Your task to perform on an android device: Set the phone to "Do not disturb". Image 0: 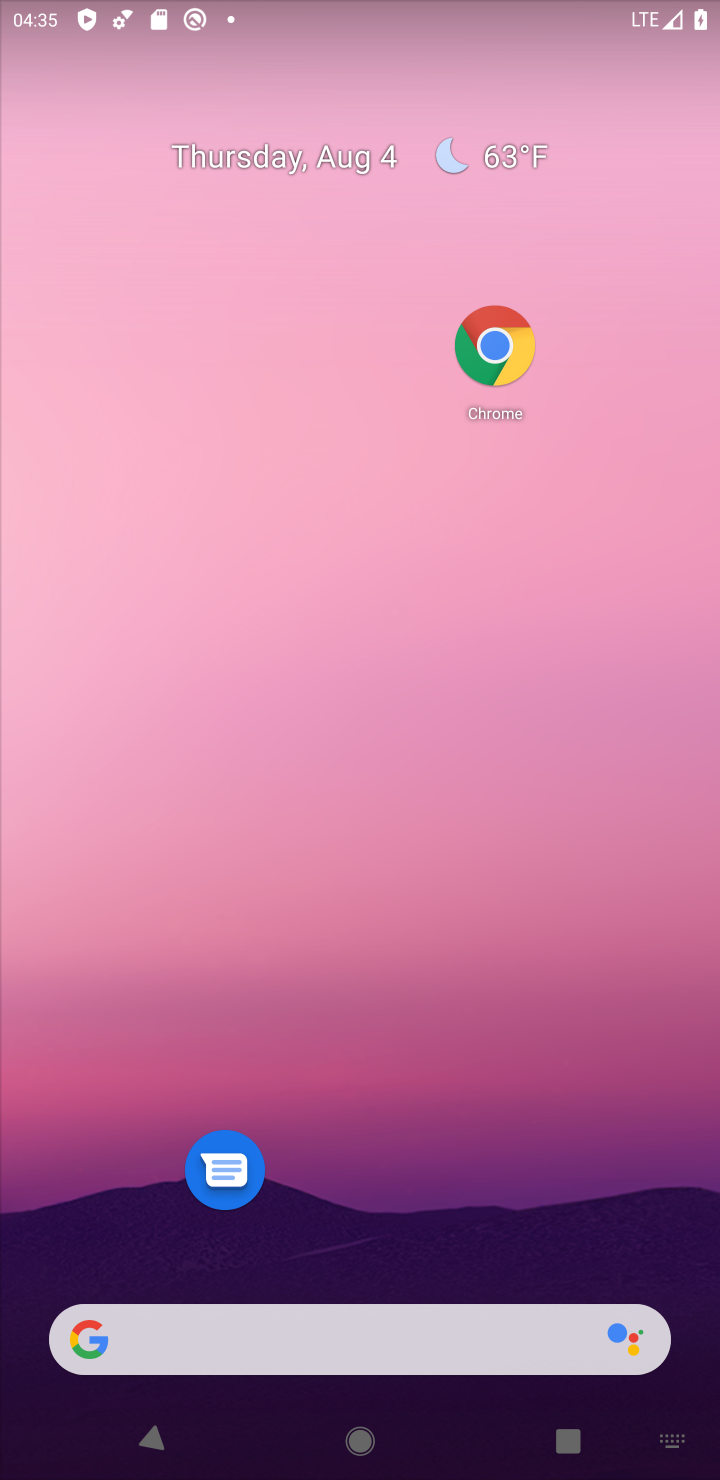
Step 0: drag from (685, 1213) to (670, 98)
Your task to perform on an android device: Set the phone to "Do not disturb". Image 1: 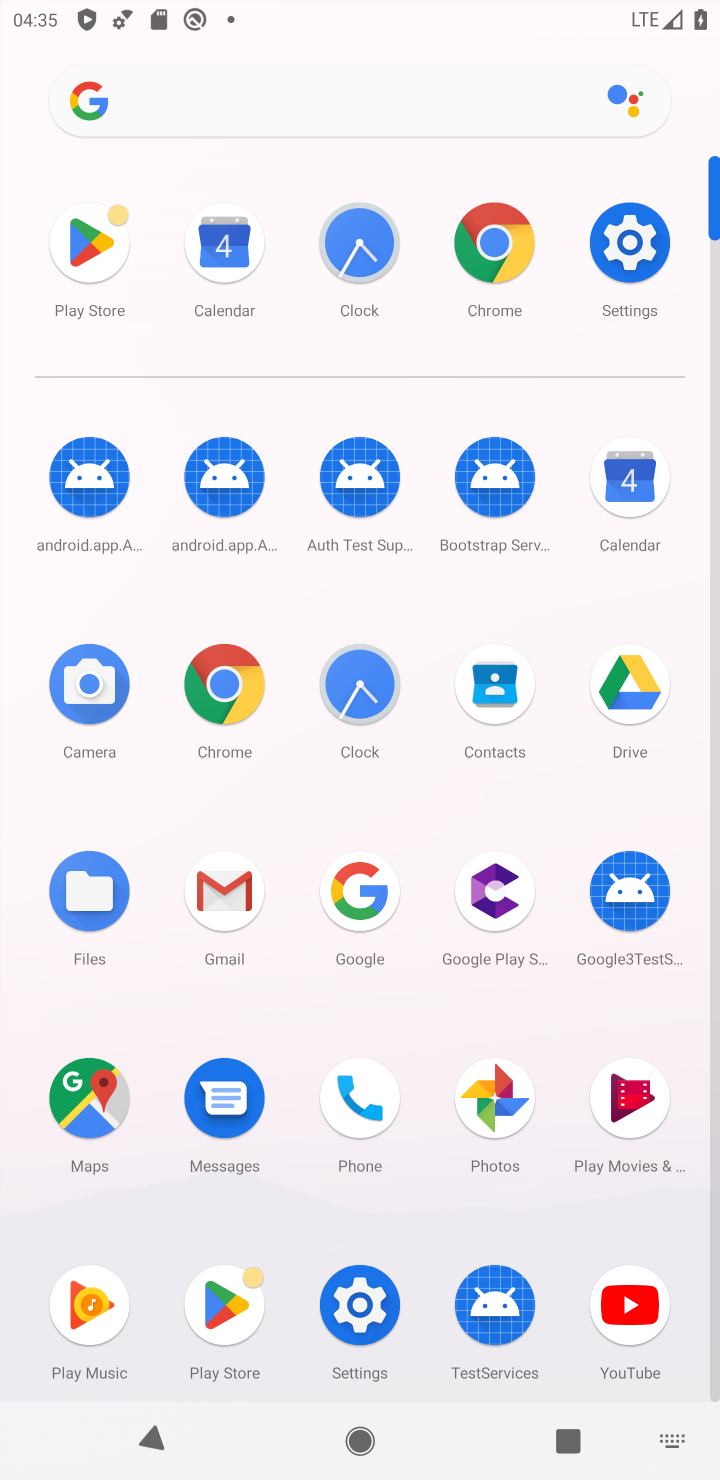
Step 1: click (628, 260)
Your task to perform on an android device: Set the phone to "Do not disturb". Image 2: 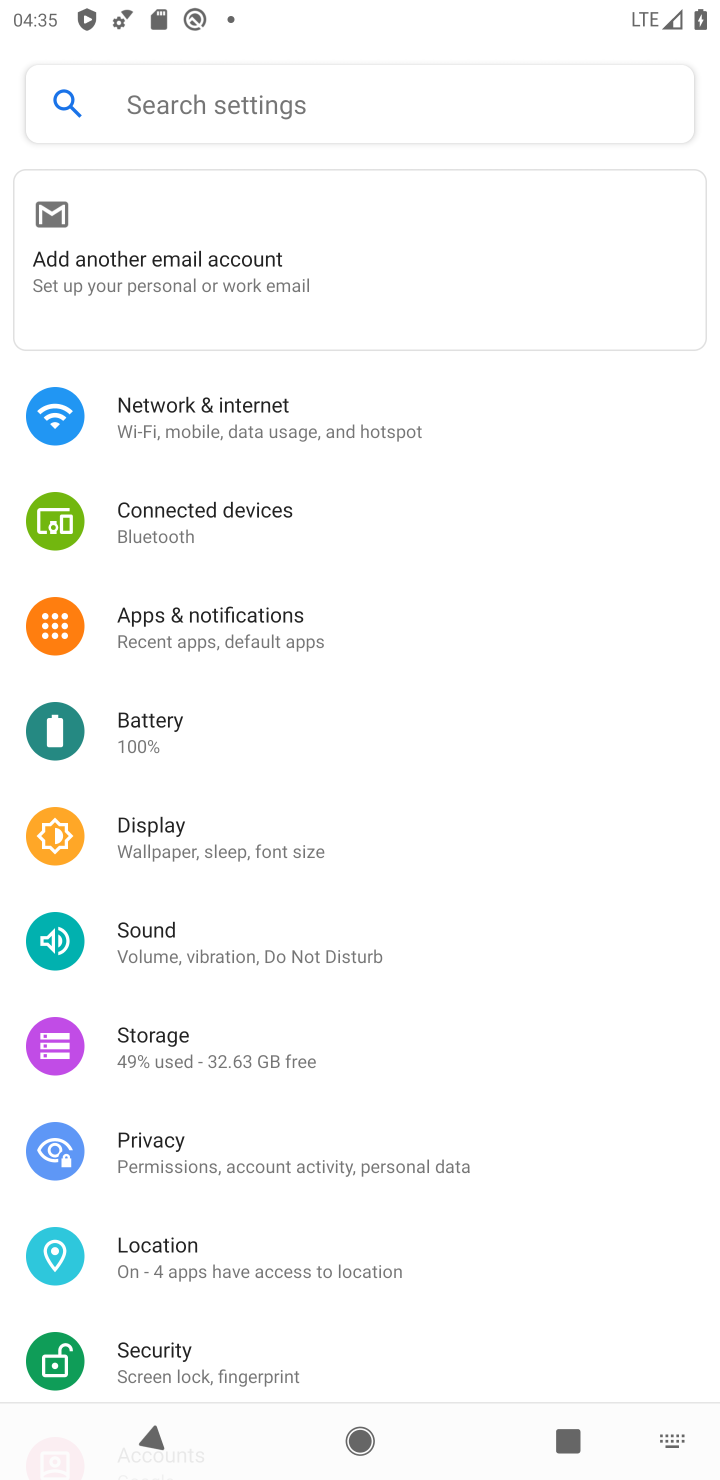
Step 2: click (286, 972)
Your task to perform on an android device: Set the phone to "Do not disturb". Image 3: 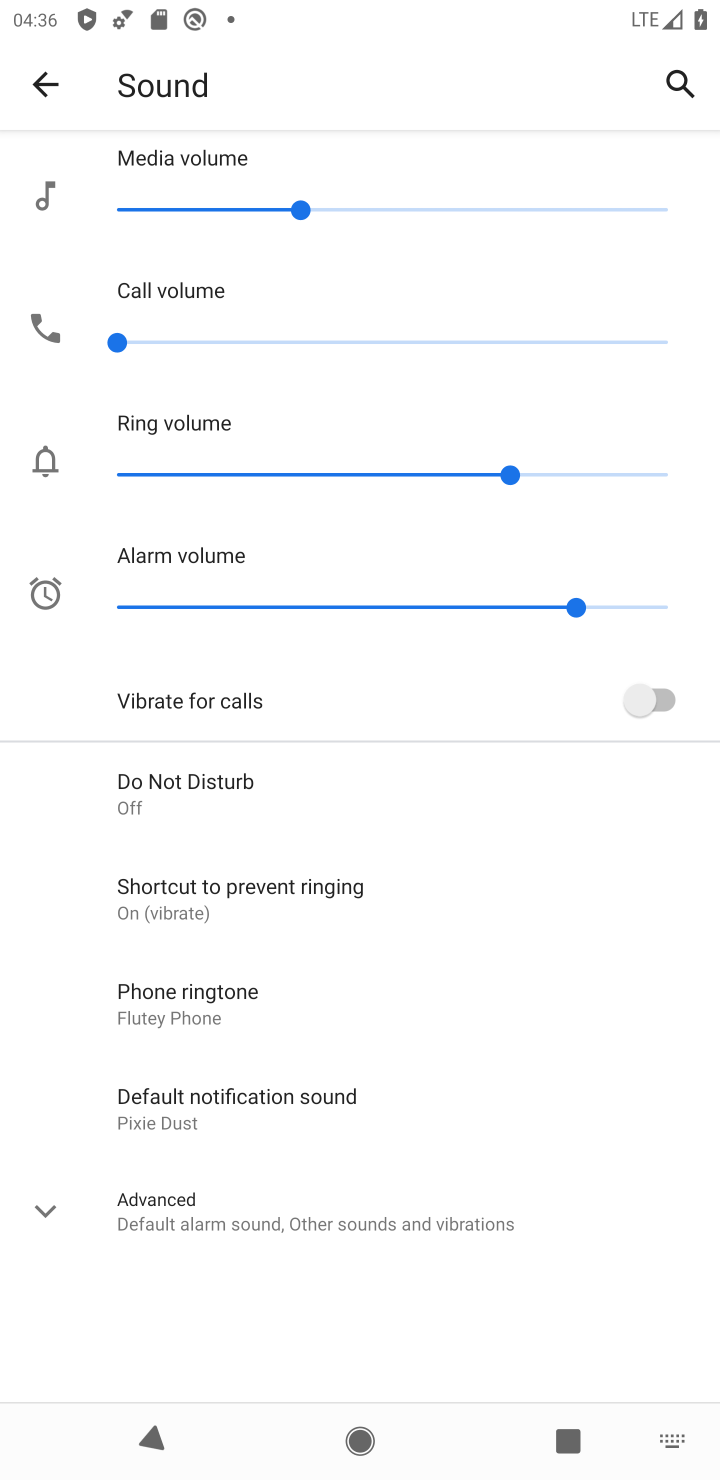
Step 3: click (406, 773)
Your task to perform on an android device: Set the phone to "Do not disturb". Image 4: 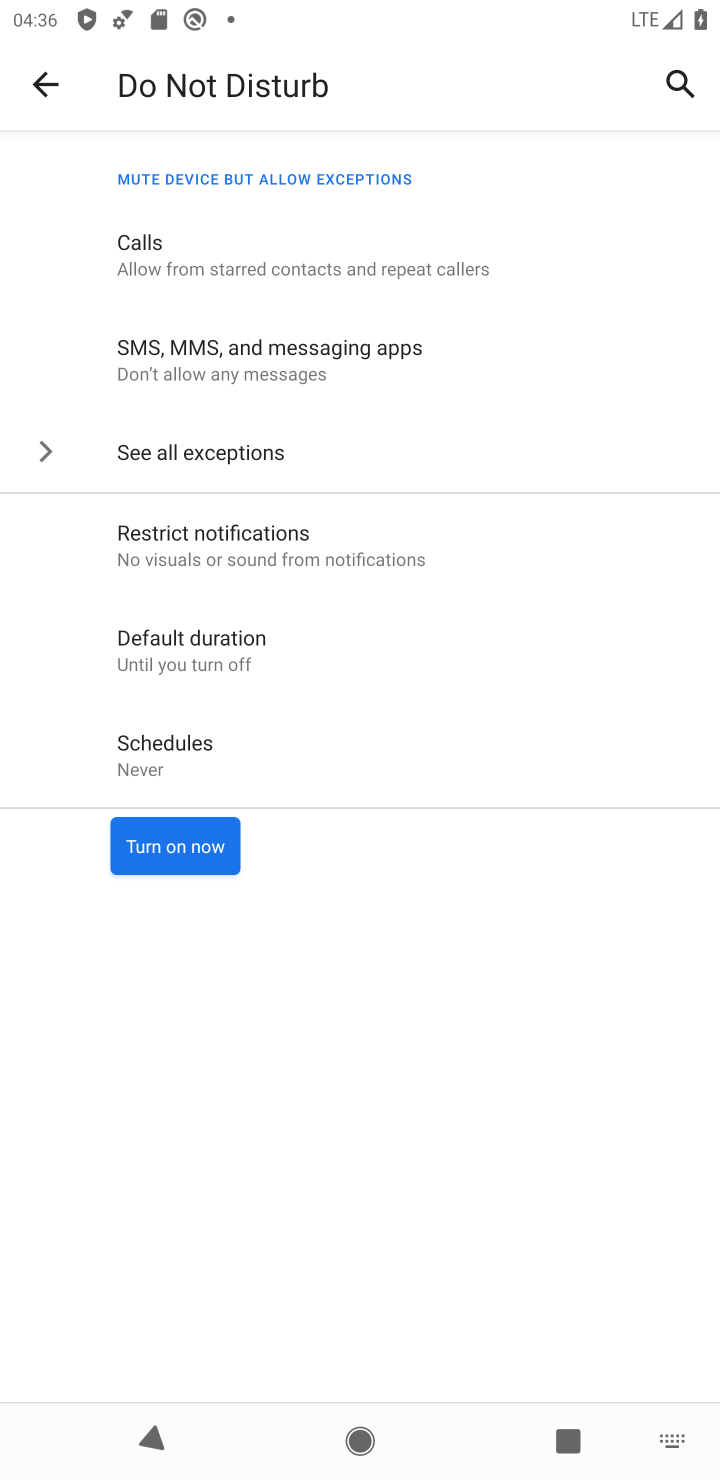
Step 4: click (194, 851)
Your task to perform on an android device: Set the phone to "Do not disturb". Image 5: 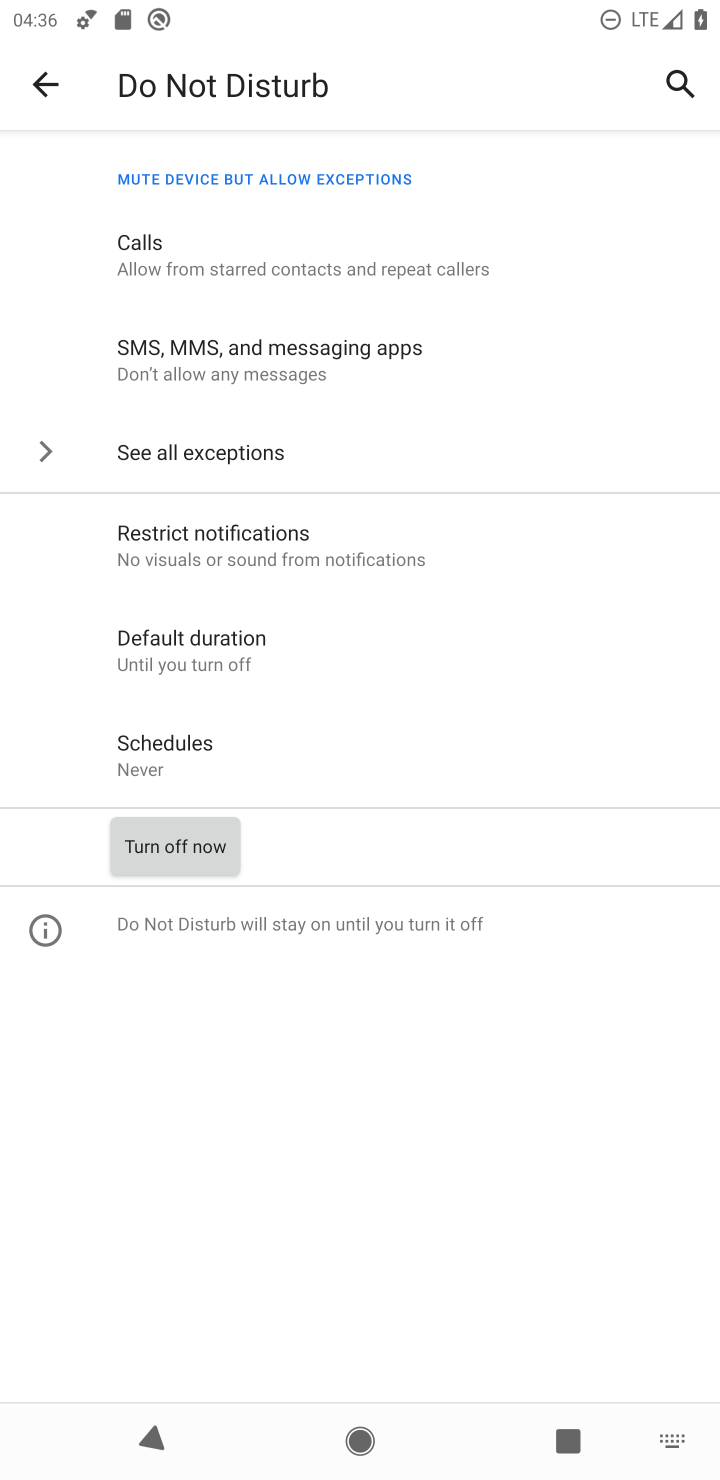
Step 5: task complete